Your task to perform on an android device: turn off improve location accuracy Image 0: 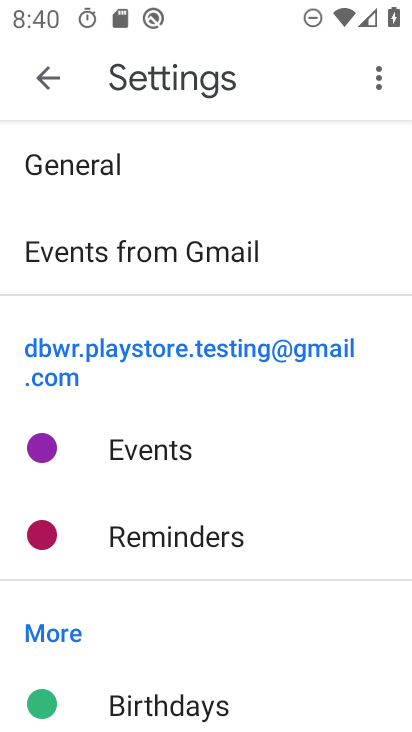
Step 0: press home button
Your task to perform on an android device: turn off improve location accuracy Image 1: 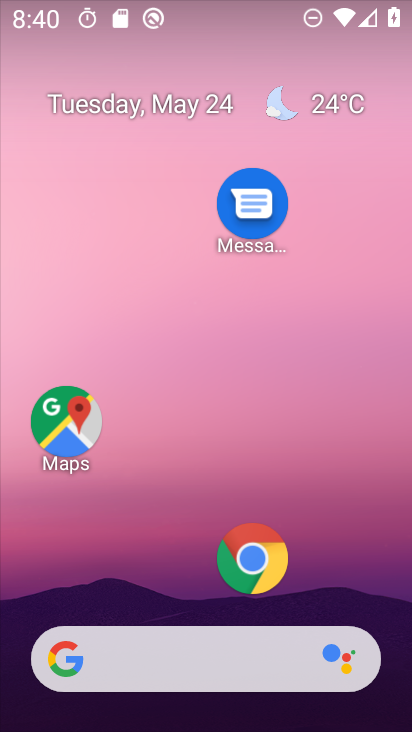
Step 1: drag from (200, 607) to (178, 161)
Your task to perform on an android device: turn off improve location accuracy Image 2: 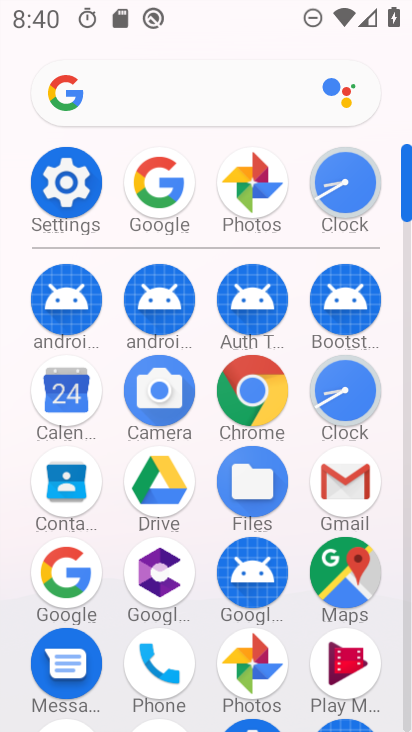
Step 2: click (53, 207)
Your task to perform on an android device: turn off improve location accuracy Image 3: 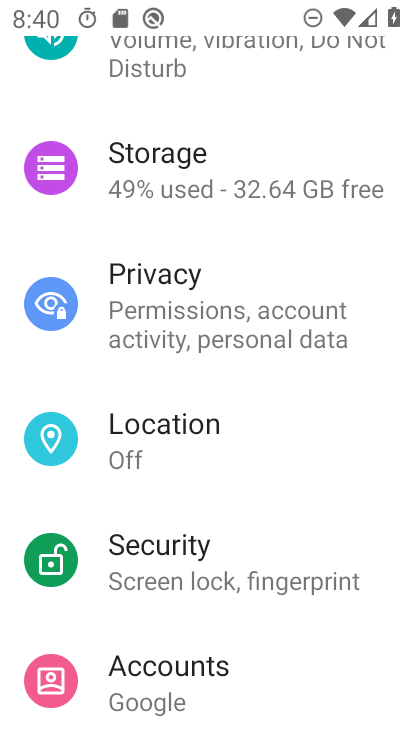
Step 3: click (166, 471)
Your task to perform on an android device: turn off improve location accuracy Image 4: 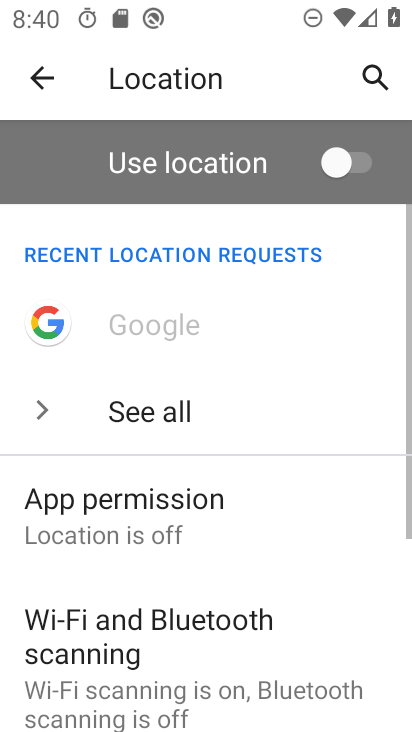
Step 4: drag from (229, 616) to (222, 239)
Your task to perform on an android device: turn off improve location accuracy Image 5: 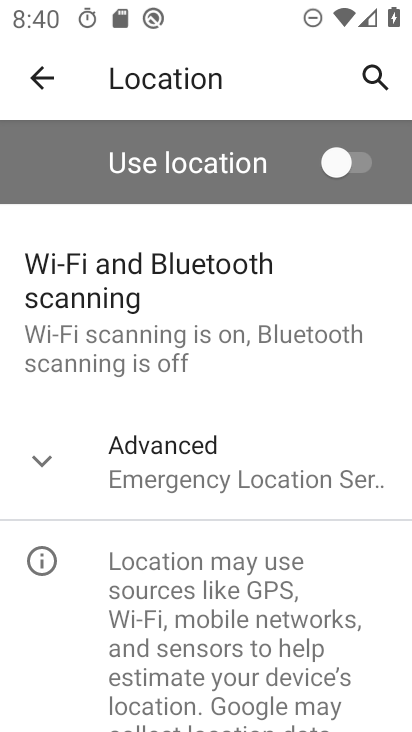
Step 5: click (189, 465)
Your task to perform on an android device: turn off improve location accuracy Image 6: 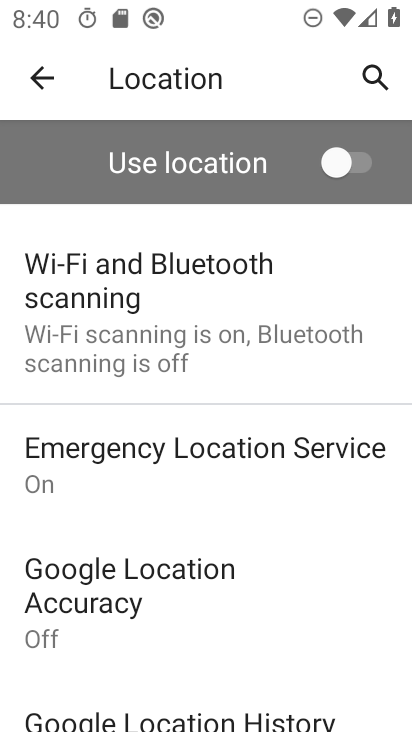
Step 6: click (175, 588)
Your task to perform on an android device: turn off improve location accuracy Image 7: 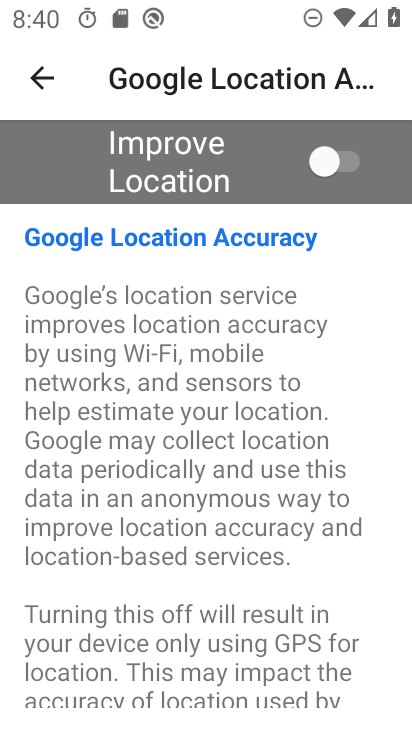
Step 7: task complete